Your task to perform on an android device: see creations saved in the google photos Image 0: 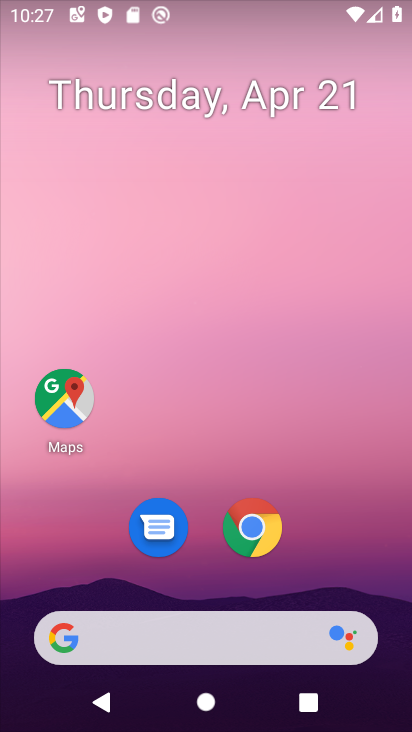
Step 0: drag from (302, 572) to (304, 135)
Your task to perform on an android device: see creations saved in the google photos Image 1: 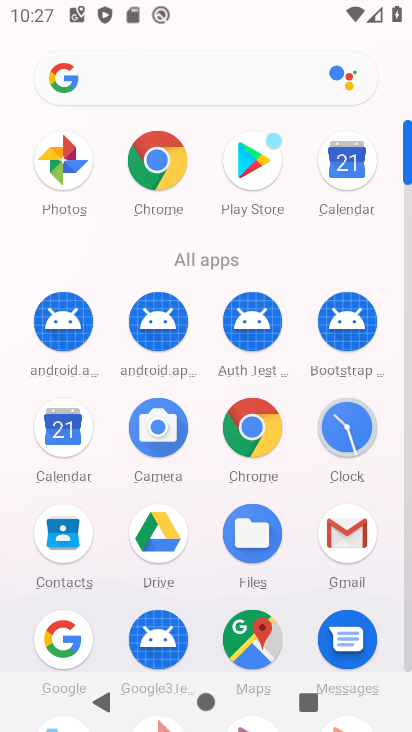
Step 1: click (74, 161)
Your task to perform on an android device: see creations saved in the google photos Image 2: 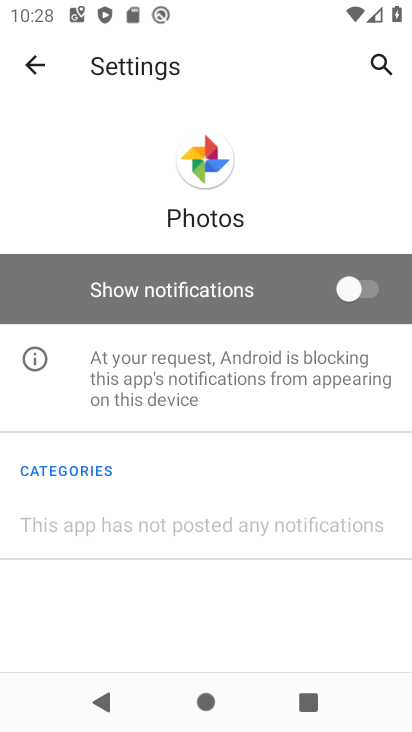
Step 2: press back button
Your task to perform on an android device: see creations saved in the google photos Image 3: 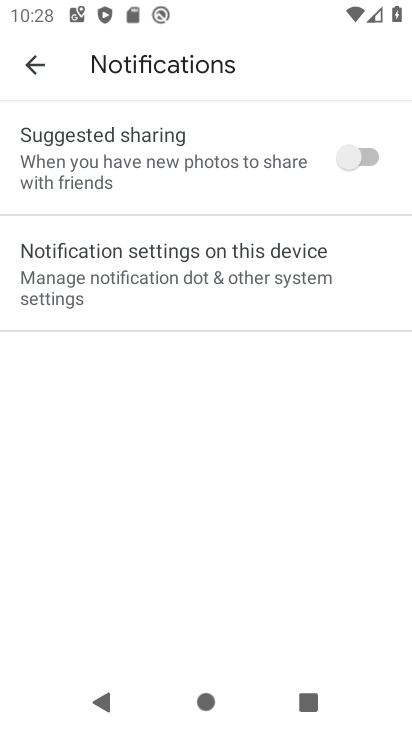
Step 3: click (41, 65)
Your task to perform on an android device: see creations saved in the google photos Image 4: 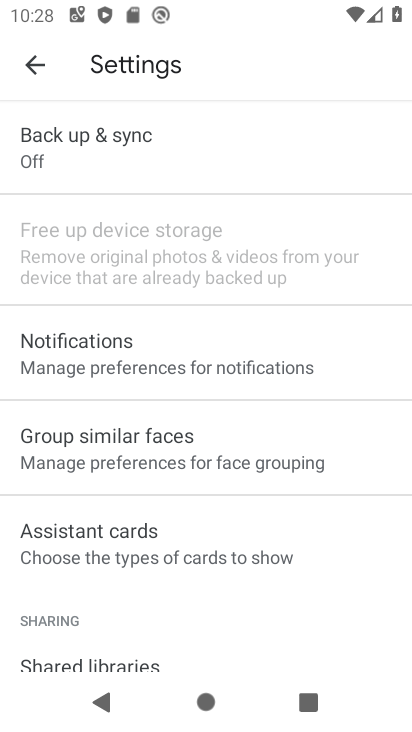
Step 4: click (38, 65)
Your task to perform on an android device: see creations saved in the google photos Image 5: 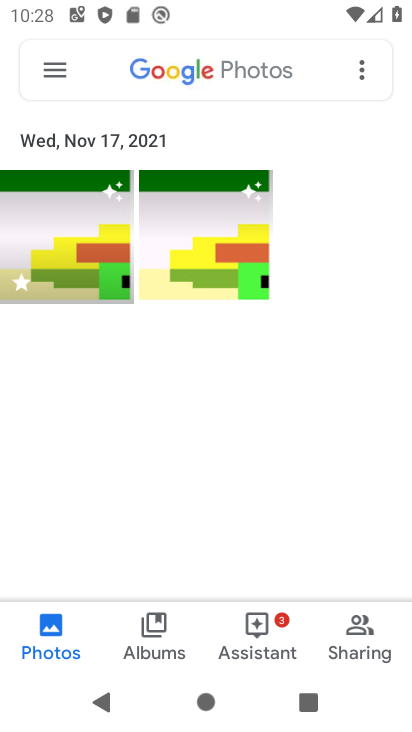
Step 5: click (210, 70)
Your task to perform on an android device: see creations saved in the google photos Image 6: 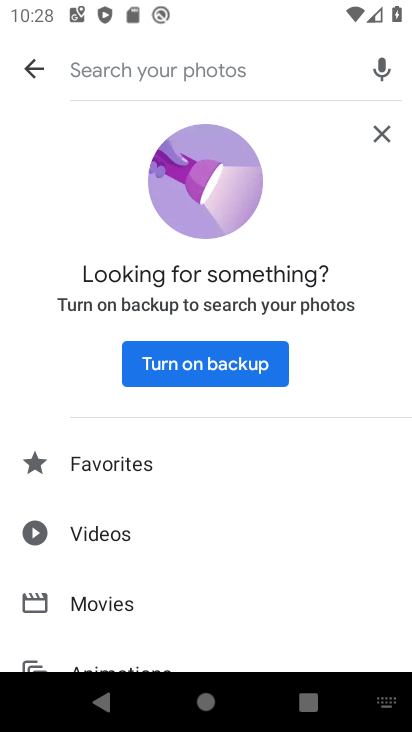
Step 6: drag from (222, 559) to (256, 136)
Your task to perform on an android device: see creations saved in the google photos Image 7: 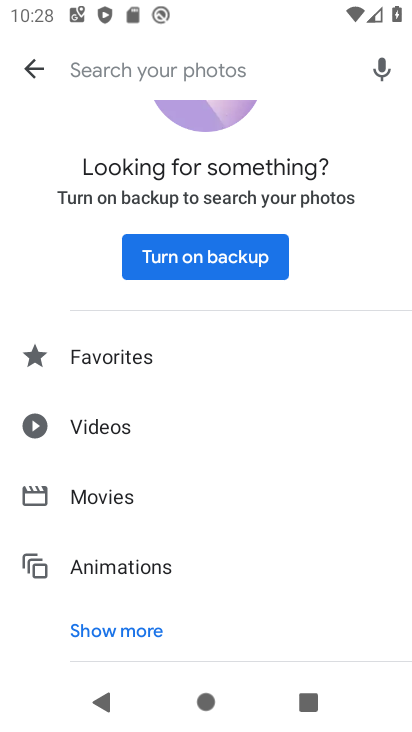
Step 7: click (107, 628)
Your task to perform on an android device: see creations saved in the google photos Image 8: 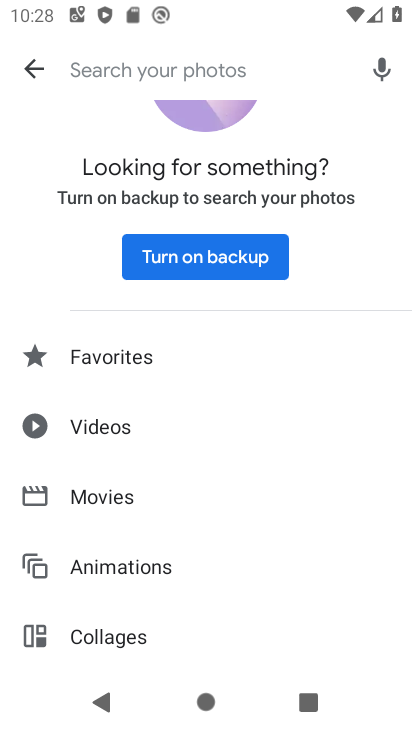
Step 8: drag from (227, 609) to (270, 266)
Your task to perform on an android device: see creations saved in the google photos Image 9: 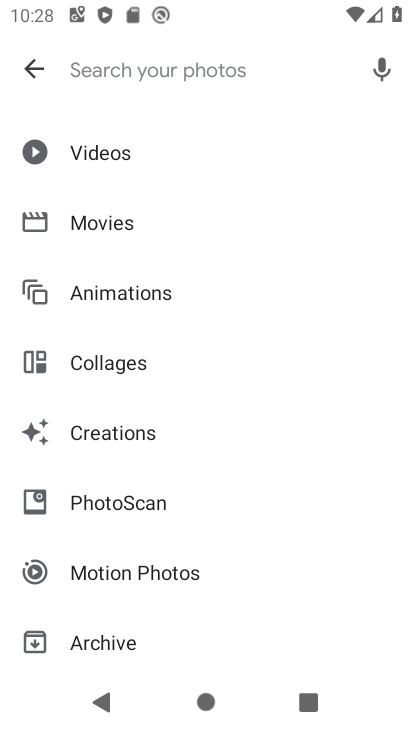
Step 9: click (132, 441)
Your task to perform on an android device: see creations saved in the google photos Image 10: 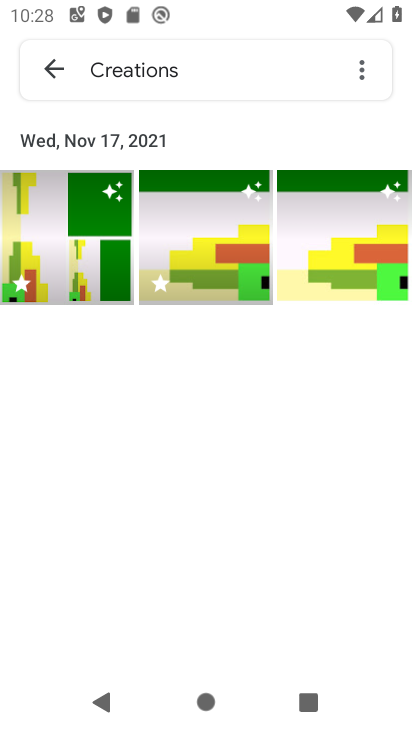
Step 10: task complete